Your task to perform on an android device: open wifi settings Image 0: 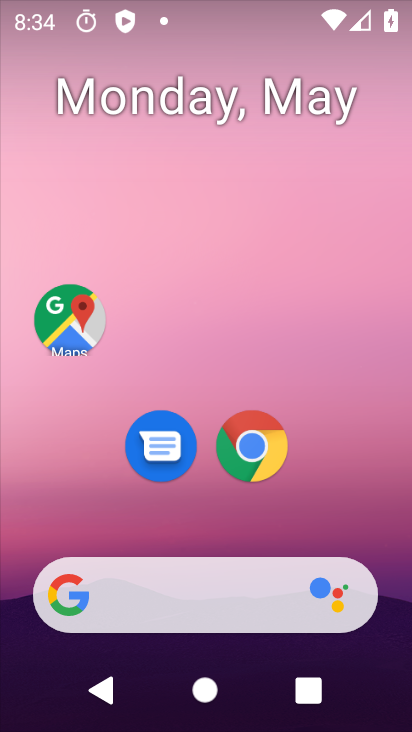
Step 0: drag from (354, 544) to (370, 16)
Your task to perform on an android device: open wifi settings Image 1: 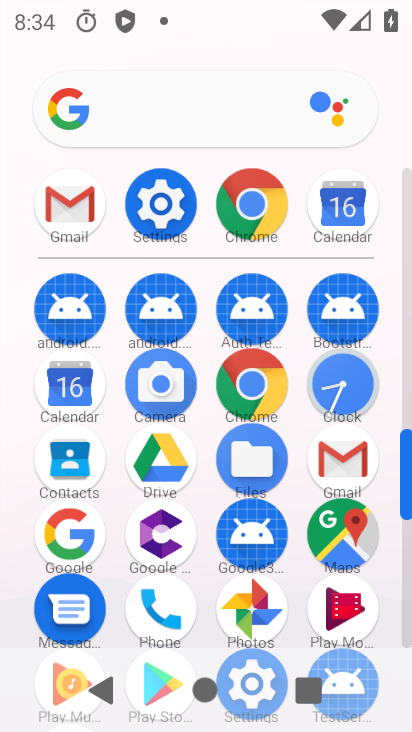
Step 1: click (153, 210)
Your task to perform on an android device: open wifi settings Image 2: 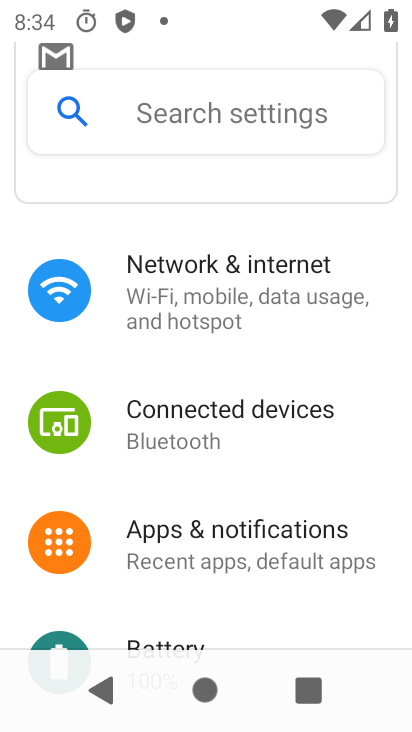
Step 2: click (165, 306)
Your task to perform on an android device: open wifi settings Image 3: 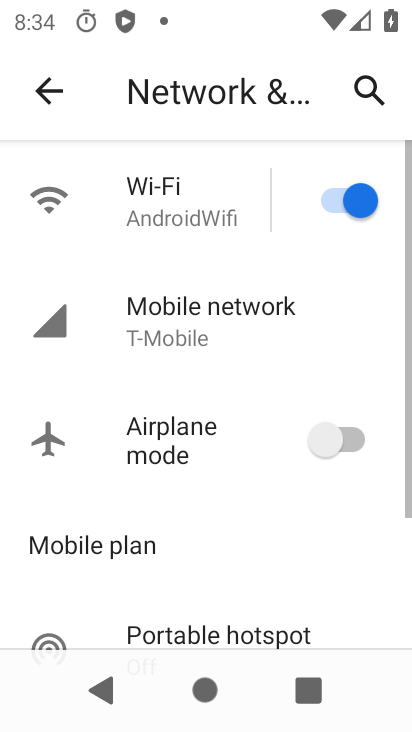
Step 3: click (139, 204)
Your task to perform on an android device: open wifi settings Image 4: 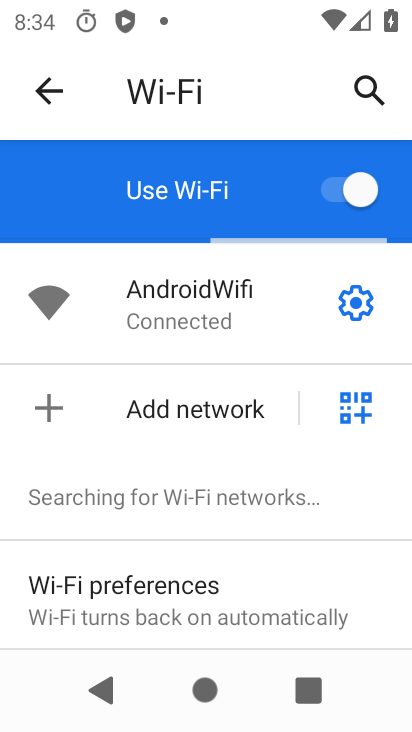
Step 4: task complete